Your task to perform on an android device: Open Chrome and go to the settings page Image 0: 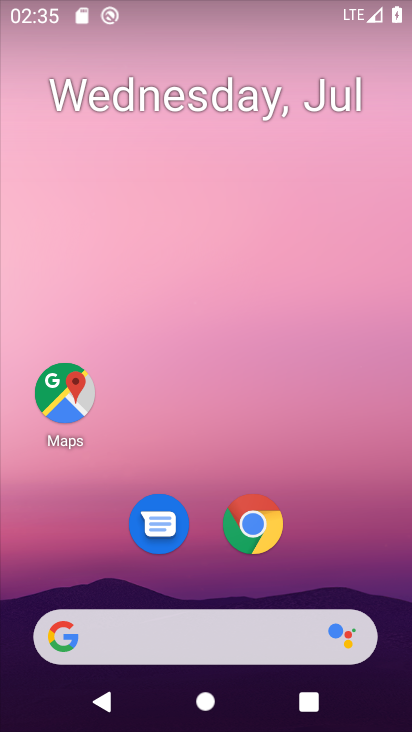
Step 0: click (256, 522)
Your task to perform on an android device: Open Chrome and go to the settings page Image 1: 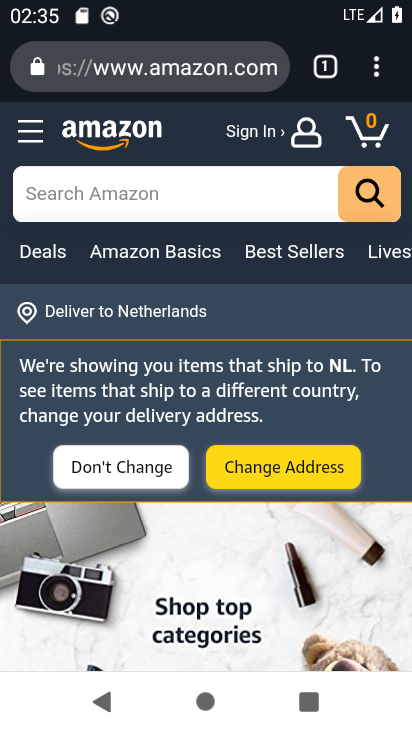
Step 1: click (382, 64)
Your task to perform on an android device: Open Chrome and go to the settings page Image 2: 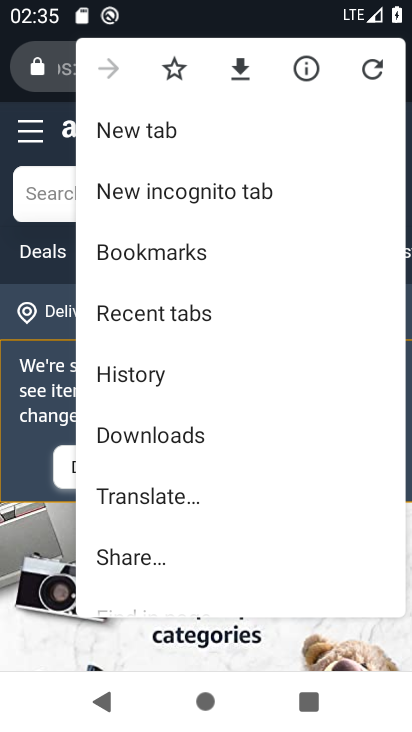
Step 2: drag from (225, 411) to (223, 124)
Your task to perform on an android device: Open Chrome and go to the settings page Image 3: 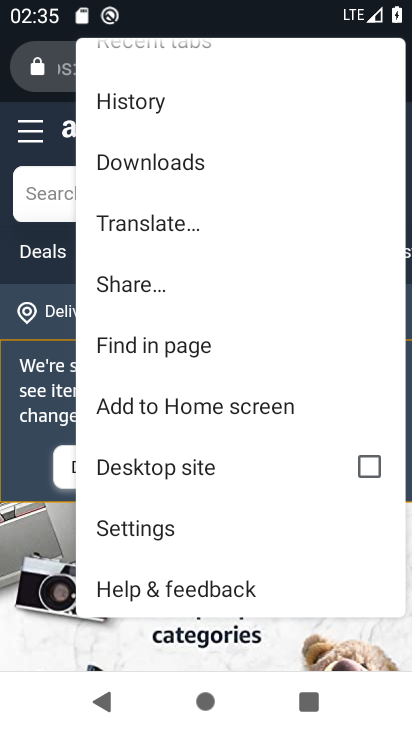
Step 3: click (120, 529)
Your task to perform on an android device: Open Chrome and go to the settings page Image 4: 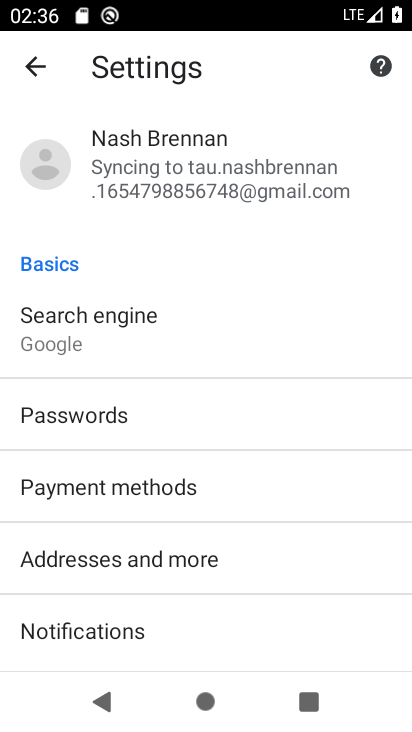
Step 4: task complete